Your task to perform on an android device: delete a single message in the gmail app Image 0: 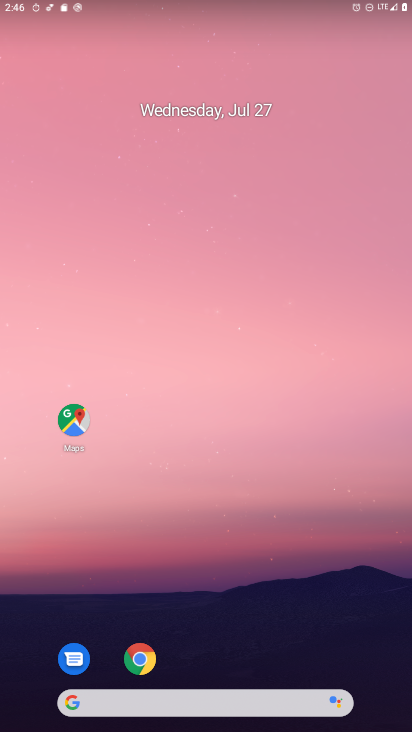
Step 0: drag from (287, 646) to (249, 139)
Your task to perform on an android device: delete a single message in the gmail app Image 1: 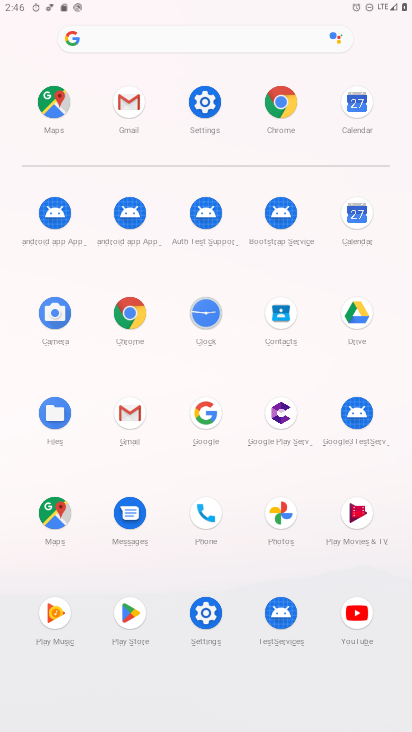
Step 1: click (130, 420)
Your task to perform on an android device: delete a single message in the gmail app Image 2: 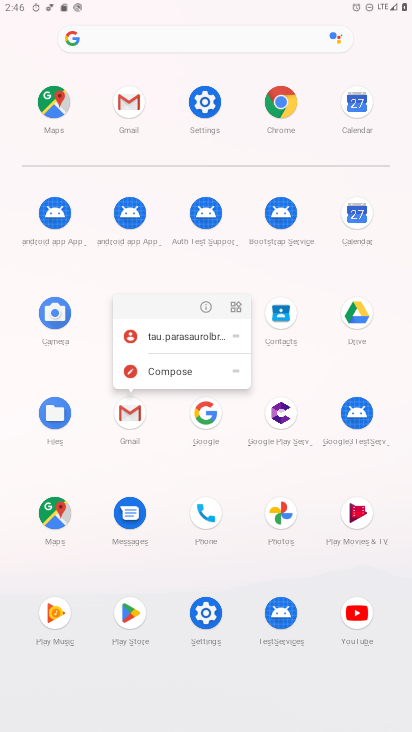
Step 2: click (130, 420)
Your task to perform on an android device: delete a single message in the gmail app Image 3: 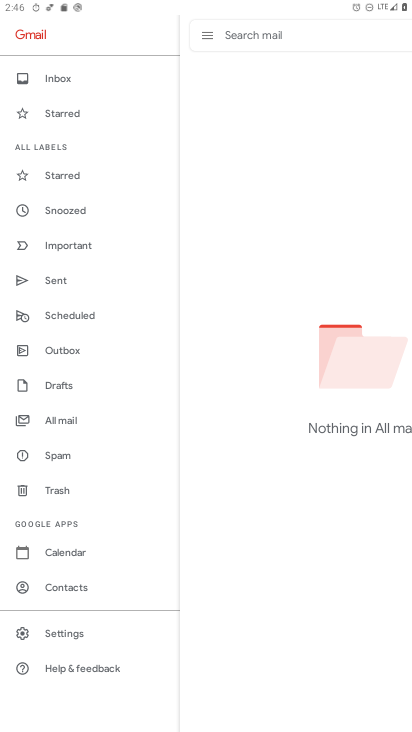
Step 3: click (57, 422)
Your task to perform on an android device: delete a single message in the gmail app Image 4: 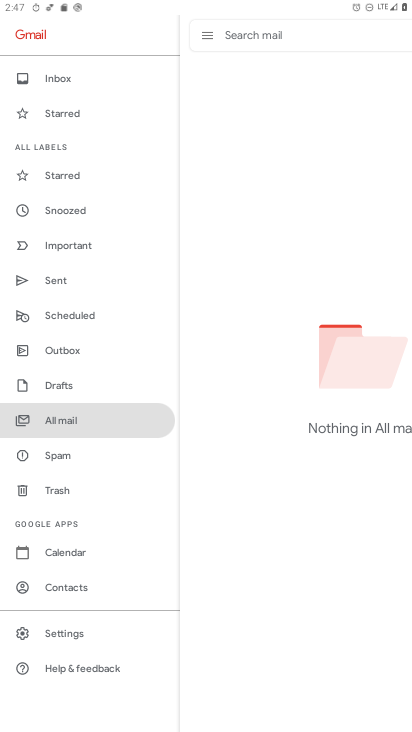
Step 4: task complete